Your task to perform on an android device: Go to Maps Image 0: 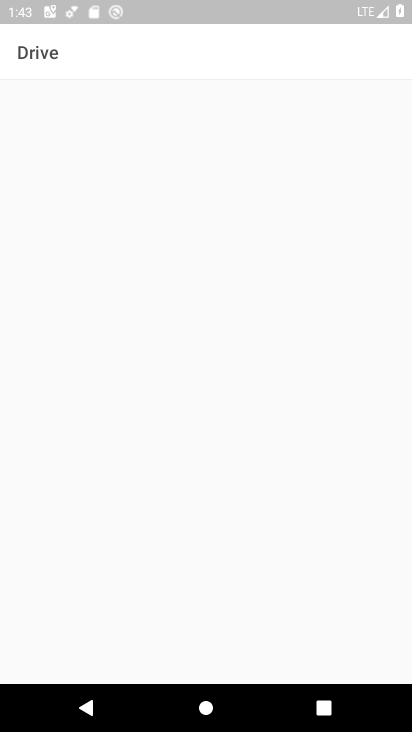
Step 0: press home button
Your task to perform on an android device: Go to Maps Image 1: 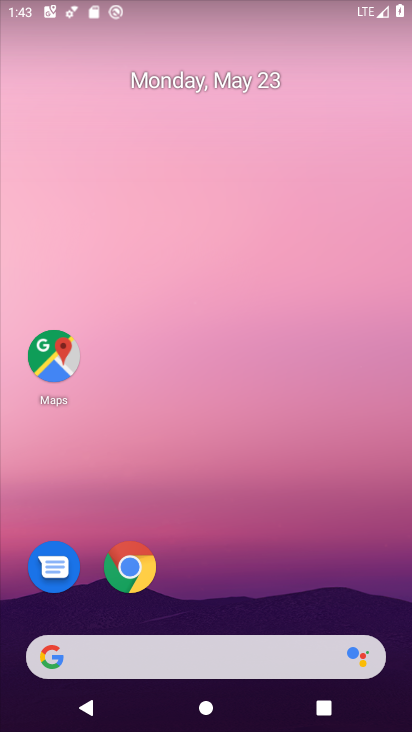
Step 1: drag from (242, 610) to (265, 244)
Your task to perform on an android device: Go to Maps Image 2: 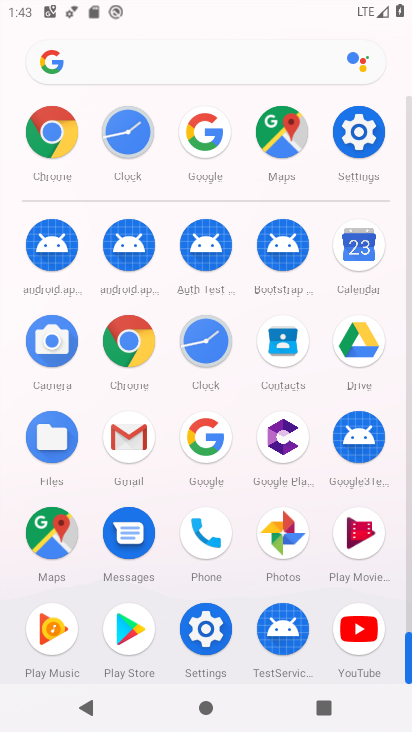
Step 2: click (46, 545)
Your task to perform on an android device: Go to Maps Image 3: 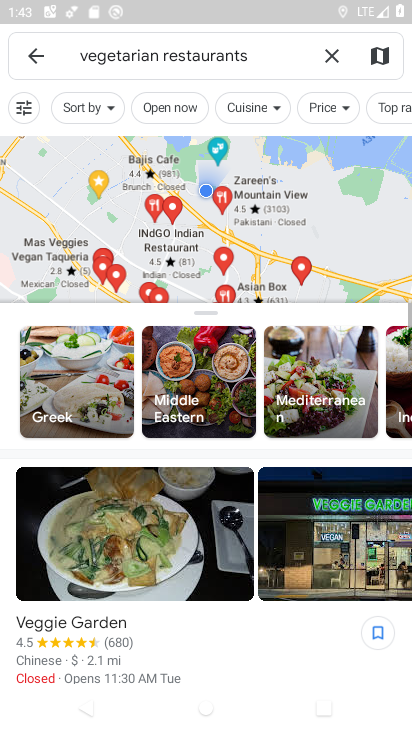
Step 3: task complete